Your task to perform on an android device: Go to ESPN.com Image 0: 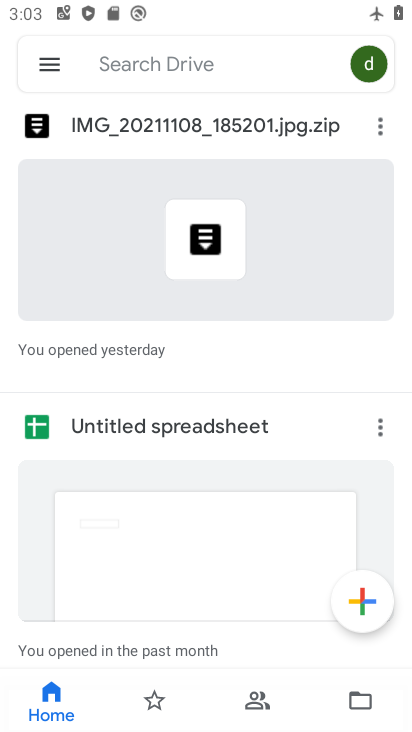
Step 0: press back button
Your task to perform on an android device: Go to ESPN.com Image 1: 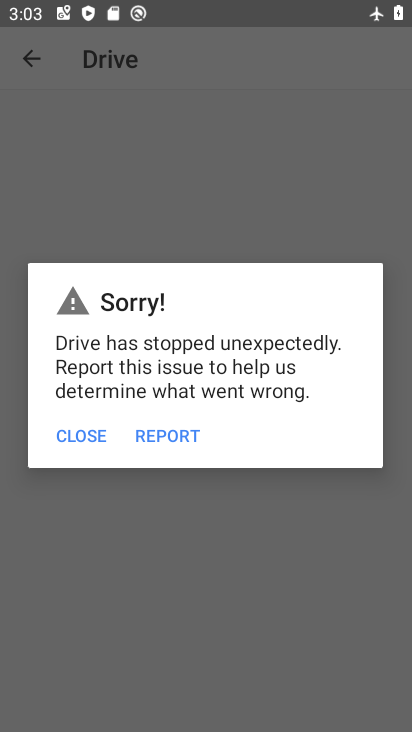
Step 1: press home button
Your task to perform on an android device: Go to ESPN.com Image 2: 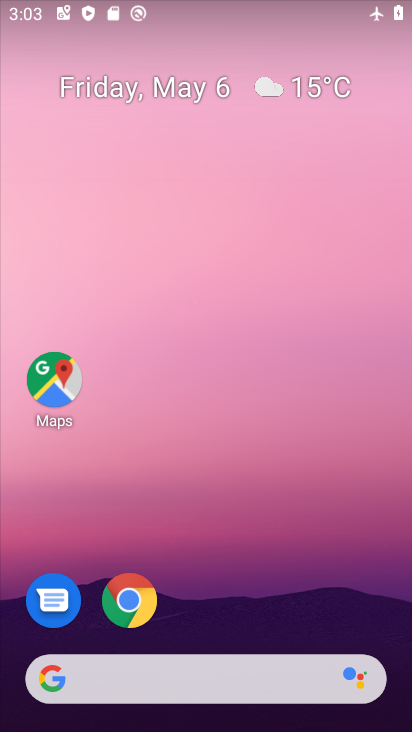
Step 2: drag from (259, 601) to (234, 11)
Your task to perform on an android device: Go to ESPN.com Image 3: 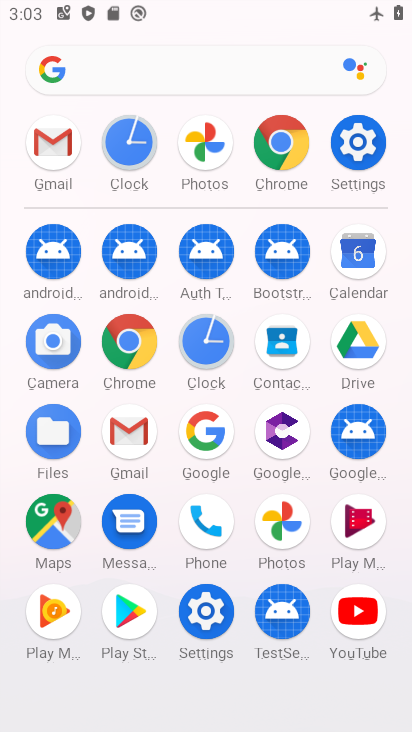
Step 3: click (127, 341)
Your task to perform on an android device: Go to ESPN.com Image 4: 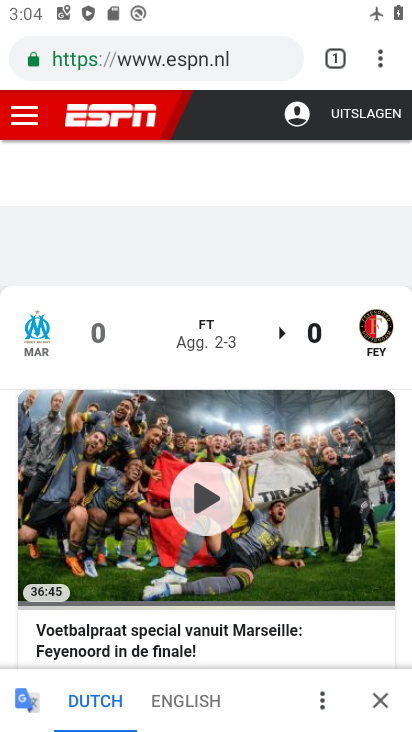
Step 4: task complete